Your task to perform on an android device: See recent photos Image 0: 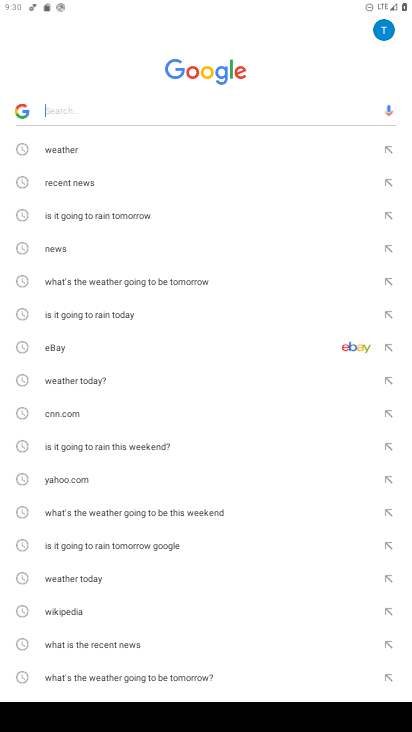
Step 0: press home button
Your task to perform on an android device: See recent photos Image 1: 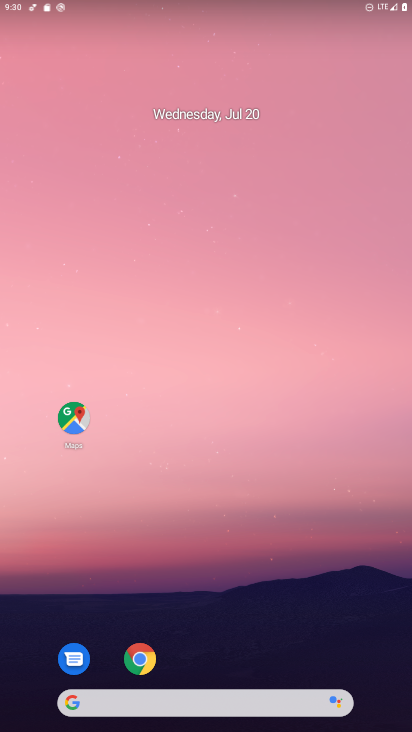
Step 1: drag from (275, 566) to (222, 111)
Your task to perform on an android device: See recent photos Image 2: 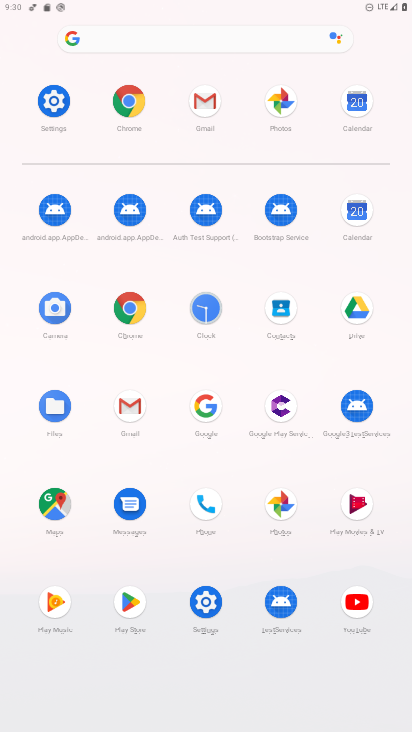
Step 2: click (284, 501)
Your task to perform on an android device: See recent photos Image 3: 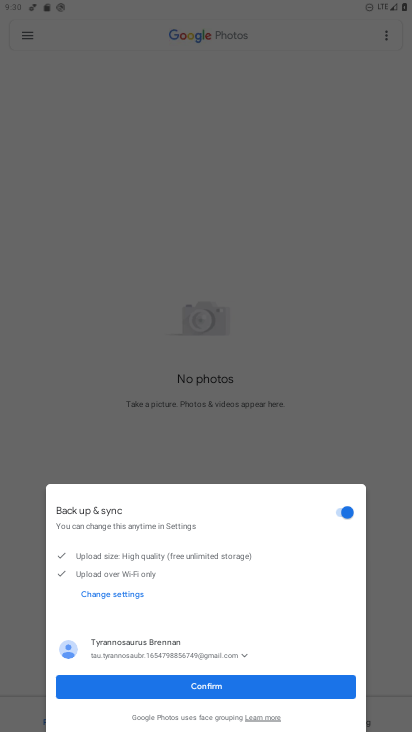
Step 3: click (204, 691)
Your task to perform on an android device: See recent photos Image 4: 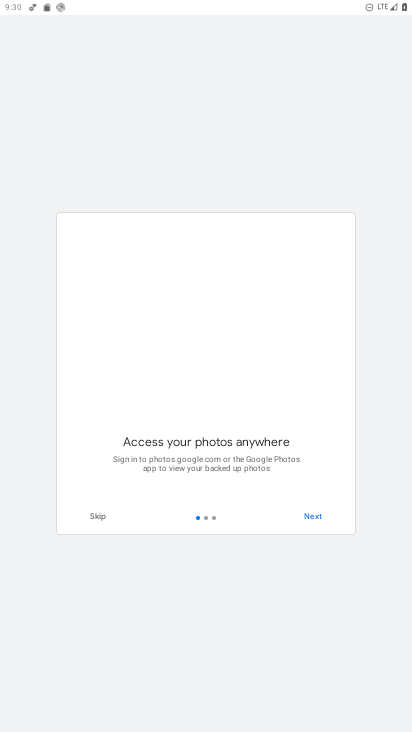
Step 4: click (312, 512)
Your task to perform on an android device: See recent photos Image 5: 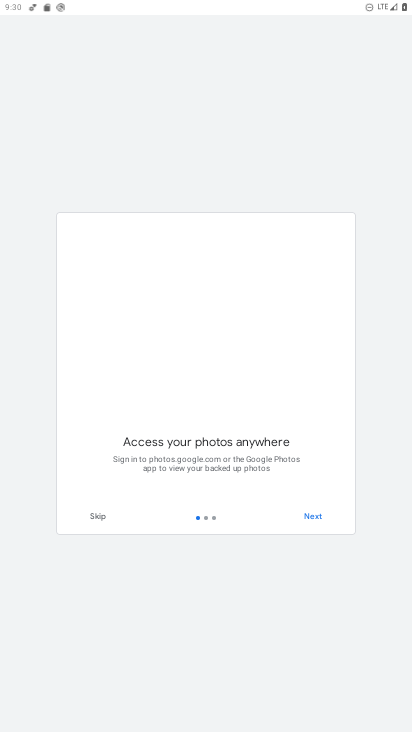
Step 5: click (312, 512)
Your task to perform on an android device: See recent photos Image 6: 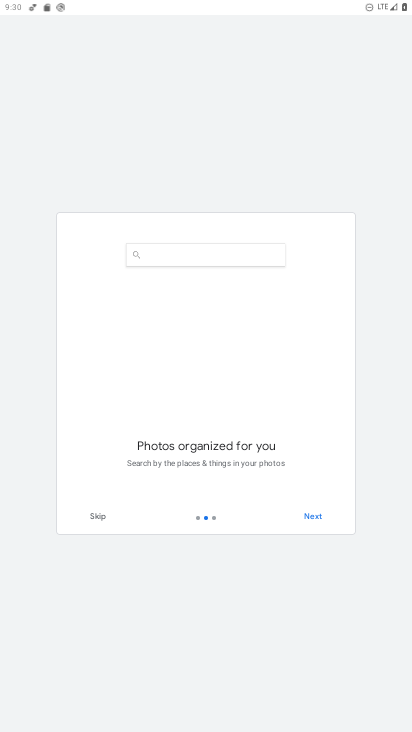
Step 6: click (312, 512)
Your task to perform on an android device: See recent photos Image 7: 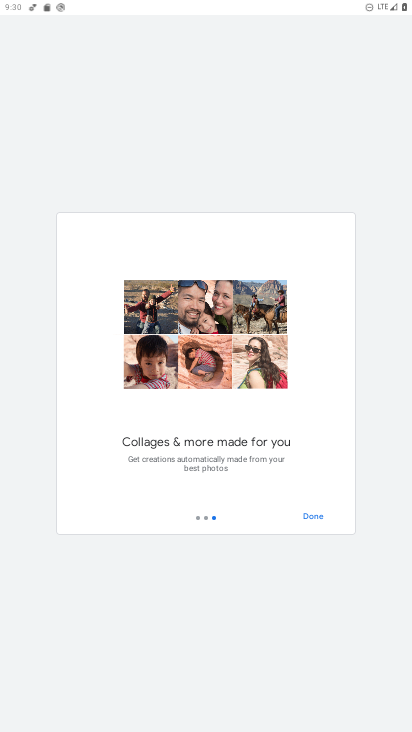
Step 7: click (312, 512)
Your task to perform on an android device: See recent photos Image 8: 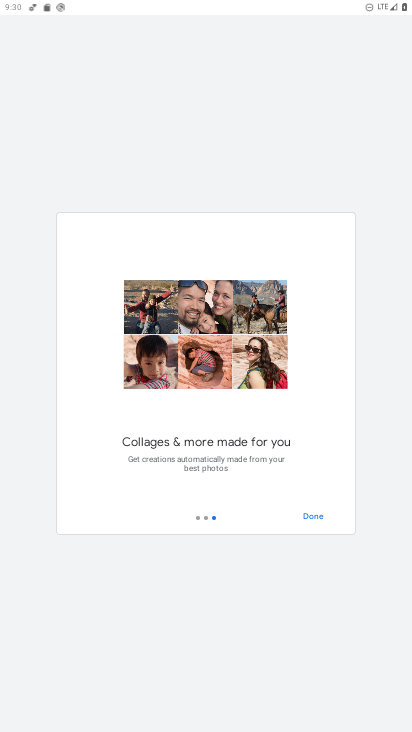
Step 8: click (312, 512)
Your task to perform on an android device: See recent photos Image 9: 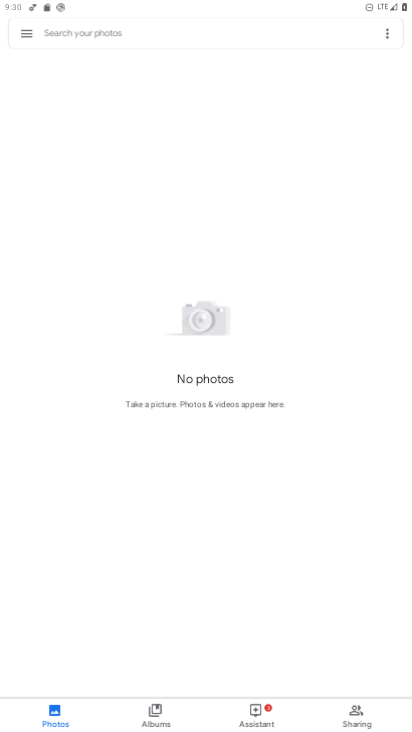
Step 9: click (311, 509)
Your task to perform on an android device: See recent photos Image 10: 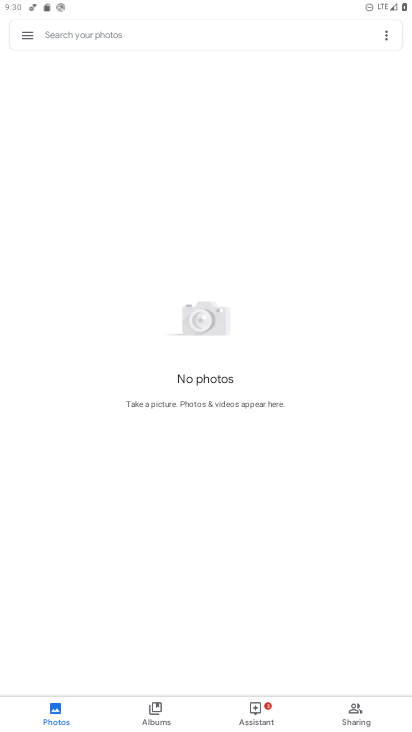
Step 10: click (311, 509)
Your task to perform on an android device: See recent photos Image 11: 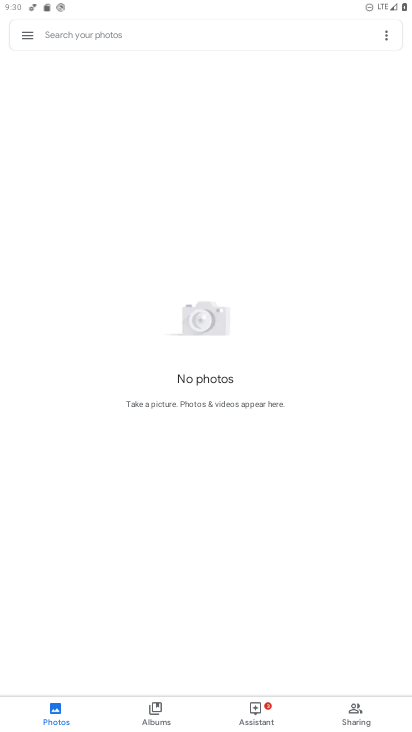
Step 11: task complete